Your task to perform on an android device: turn on location history Image 0: 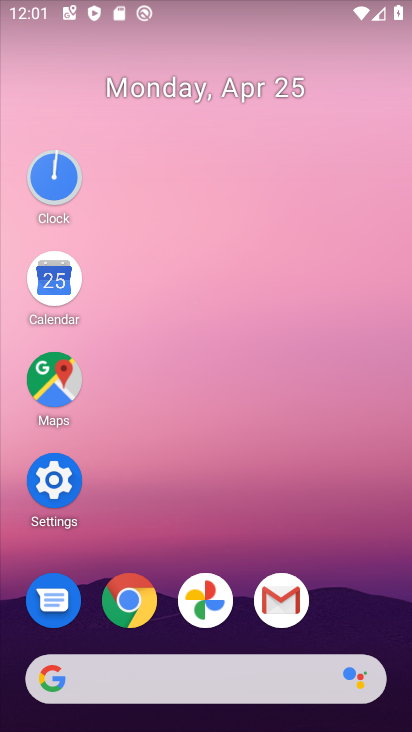
Step 0: click (157, 39)
Your task to perform on an android device: turn on location history Image 1: 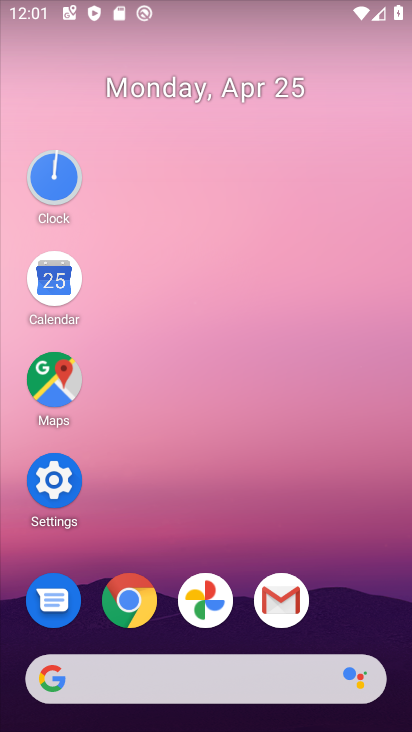
Step 1: click (56, 389)
Your task to perform on an android device: turn on location history Image 2: 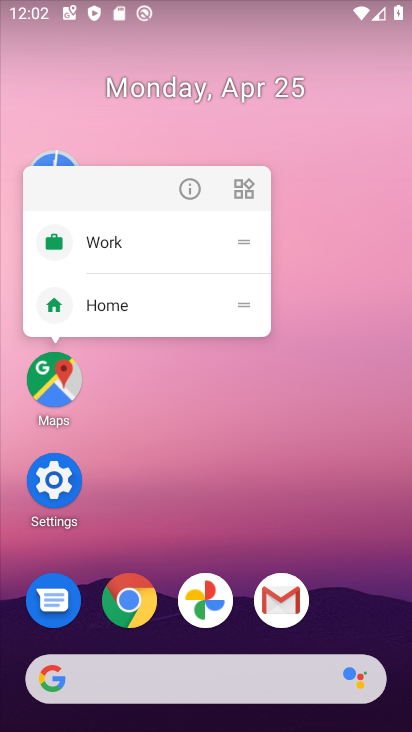
Step 2: click (41, 380)
Your task to perform on an android device: turn on location history Image 3: 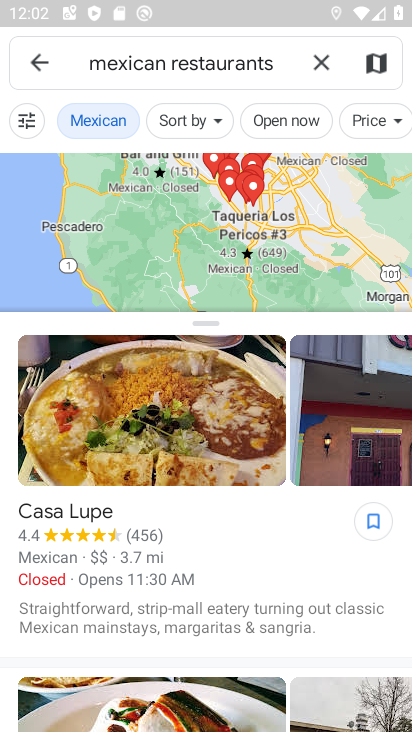
Step 3: click (326, 63)
Your task to perform on an android device: turn on location history Image 4: 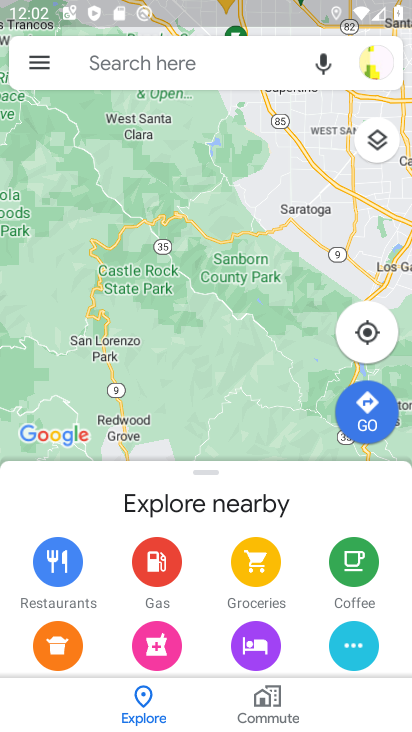
Step 4: click (37, 55)
Your task to perform on an android device: turn on location history Image 5: 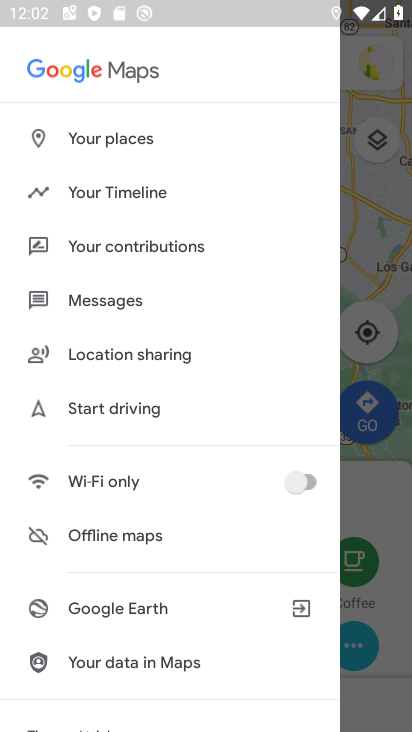
Step 5: click (127, 194)
Your task to perform on an android device: turn on location history Image 6: 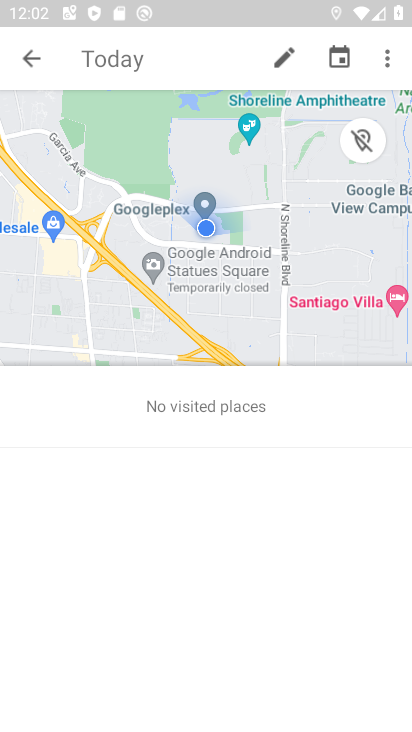
Step 6: click (384, 62)
Your task to perform on an android device: turn on location history Image 7: 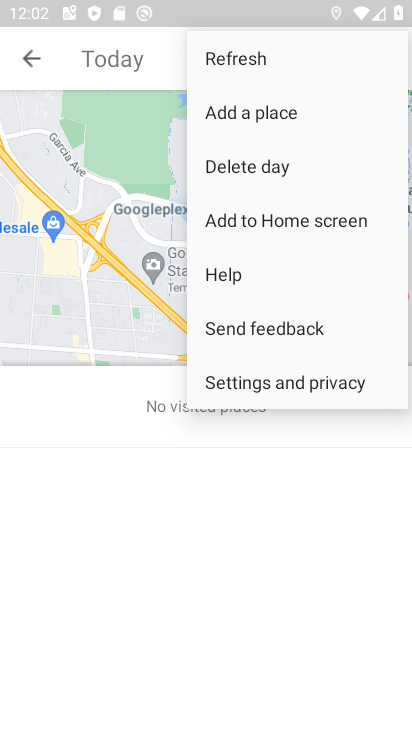
Step 7: click (245, 375)
Your task to perform on an android device: turn on location history Image 8: 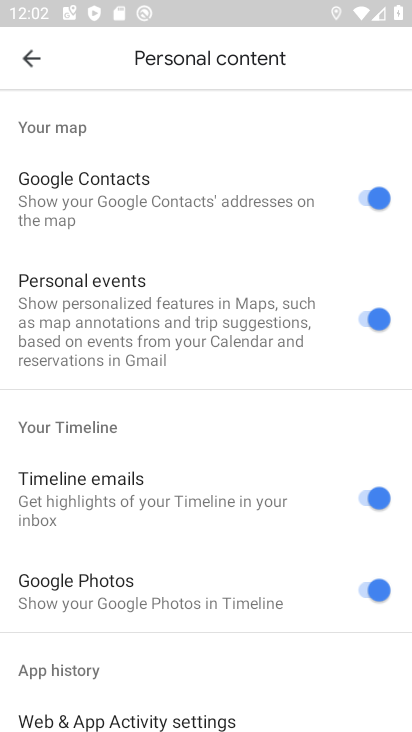
Step 8: drag from (222, 488) to (236, 251)
Your task to perform on an android device: turn on location history Image 9: 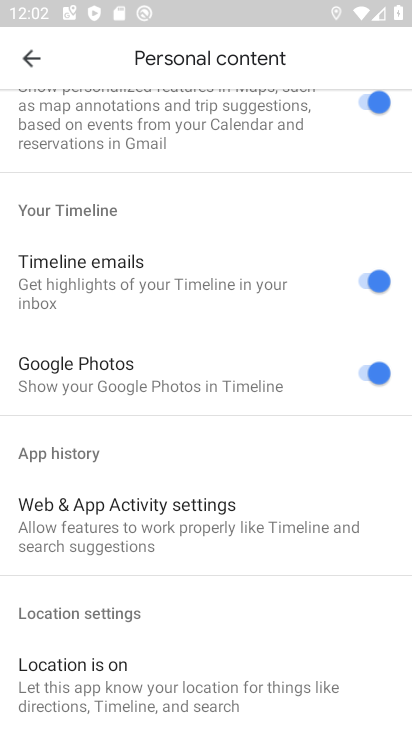
Step 9: drag from (224, 610) to (232, 339)
Your task to perform on an android device: turn on location history Image 10: 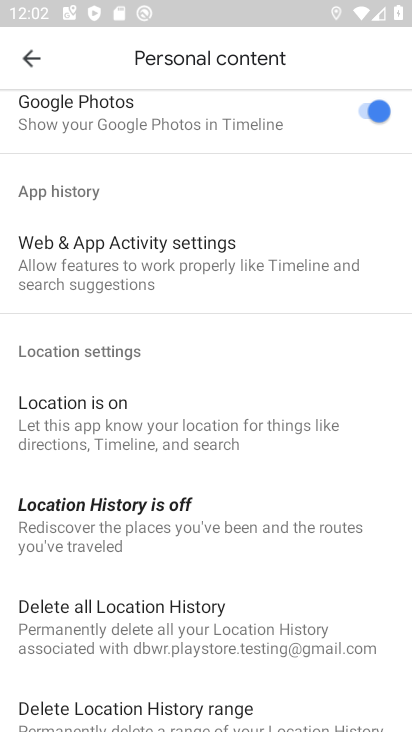
Step 10: click (110, 502)
Your task to perform on an android device: turn on location history Image 11: 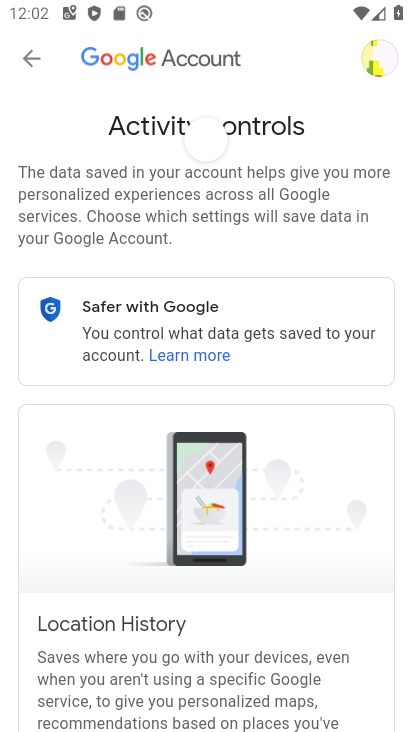
Step 11: task complete